Your task to perform on an android device: add a label to a message in the gmail app Image 0: 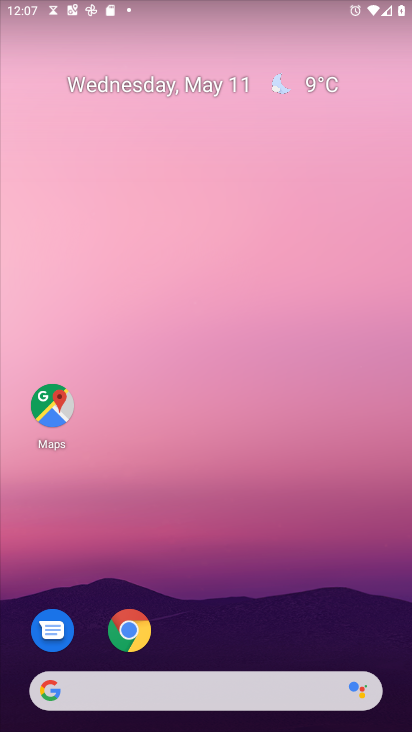
Step 0: drag from (284, 480) to (299, 85)
Your task to perform on an android device: add a label to a message in the gmail app Image 1: 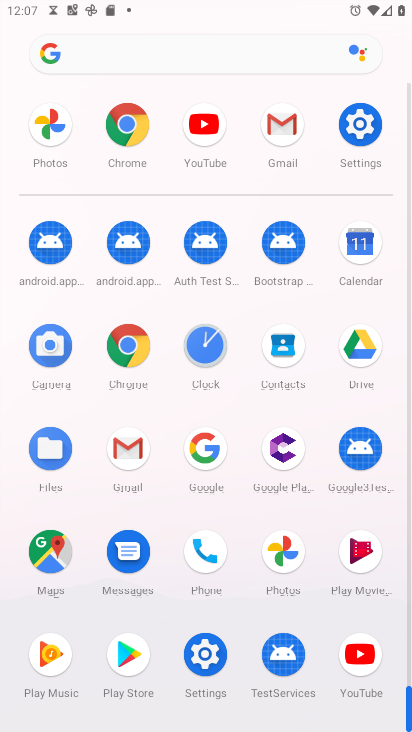
Step 1: click (290, 128)
Your task to perform on an android device: add a label to a message in the gmail app Image 2: 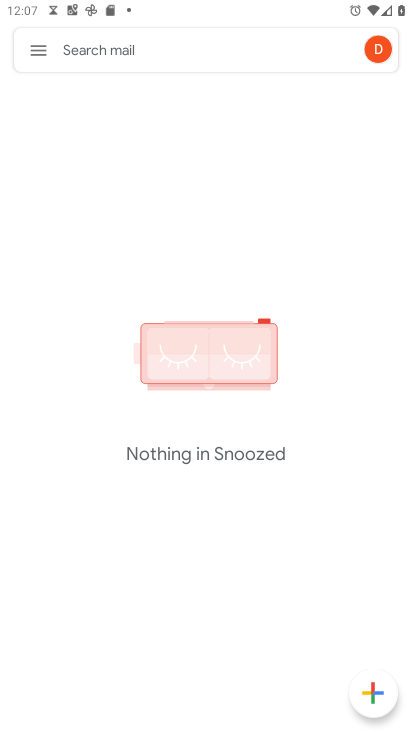
Step 2: click (34, 54)
Your task to perform on an android device: add a label to a message in the gmail app Image 3: 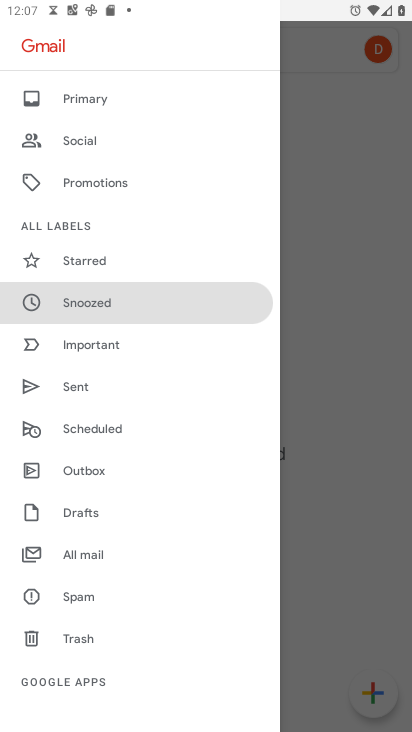
Step 3: drag from (215, 610) to (298, 114)
Your task to perform on an android device: add a label to a message in the gmail app Image 4: 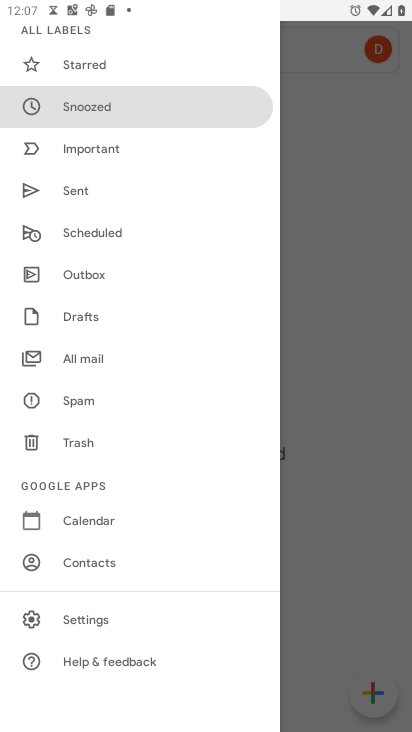
Step 4: click (139, 612)
Your task to perform on an android device: add a label to a message in the gmail app Image 5: 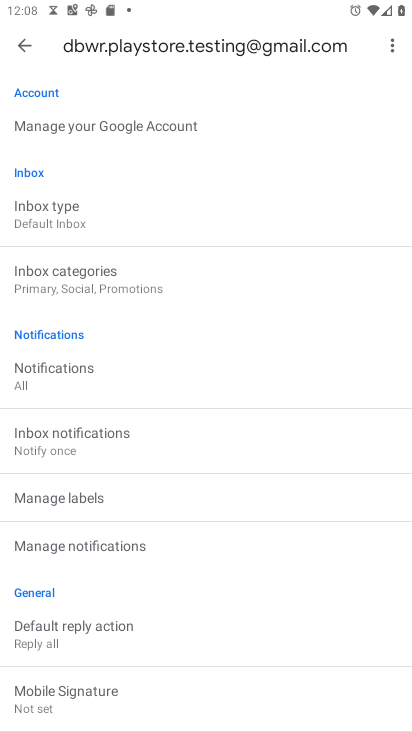
Step 5: task complete